Your task to perform on an android device: delete the emails in spam in the gmail app Image 0: 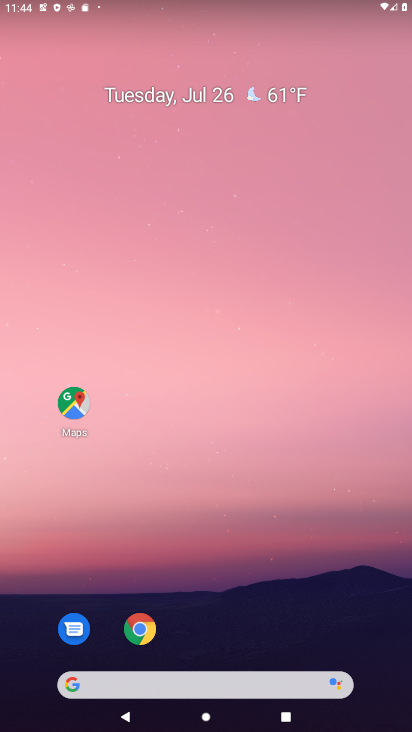
Step 0: drag from (256, 659) to (265, 174)
Your task to perform on an android device: delete the emails in spam in the gmail app Image 1: 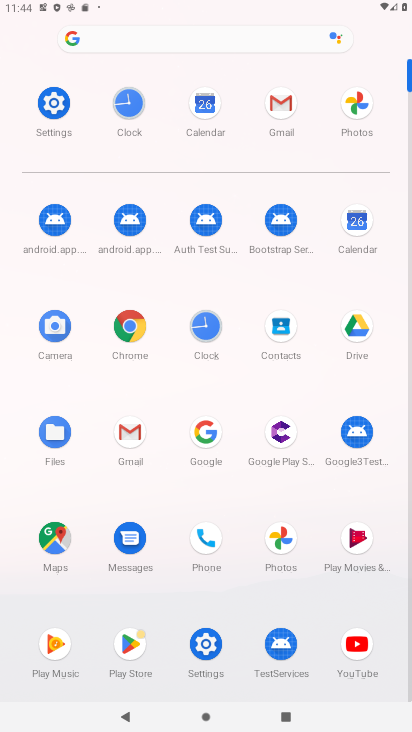
Step 1: click (297, 128)
Your task to perform on an android device: delete the emails in spam in the gmail app Image 2: 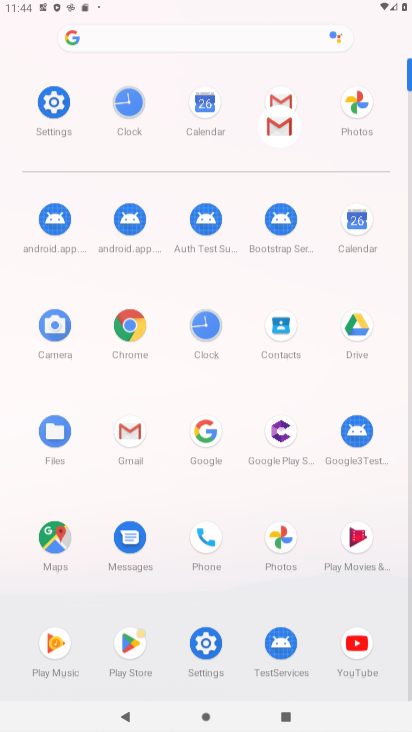
Step 2: task complete